Your task to perform on an android device: Open Chrome and go to the settings page Image 0: 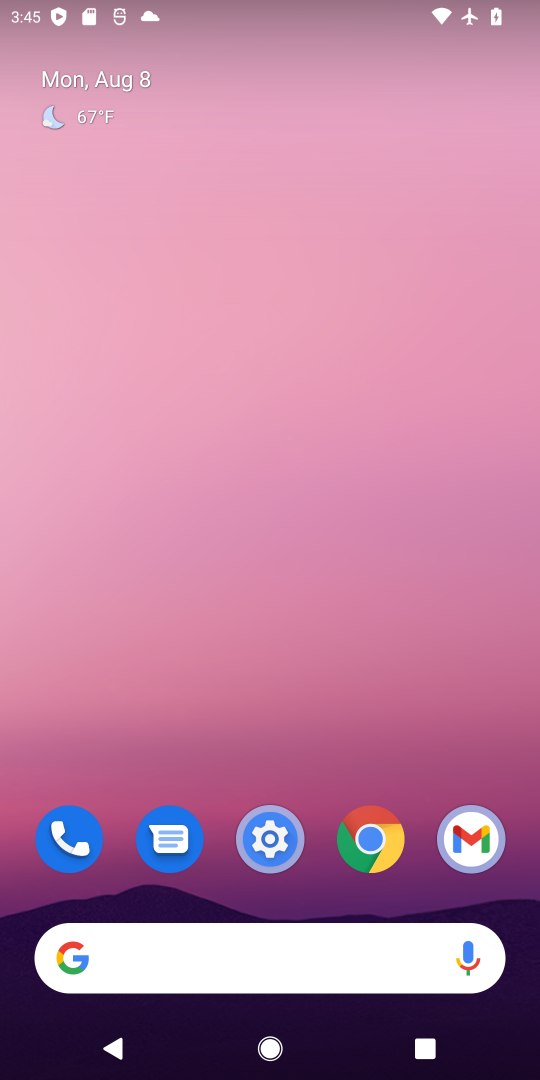
Step 0: press home button
Your task to perform on an android device: Open Chrome and go to the settings page Image 1: 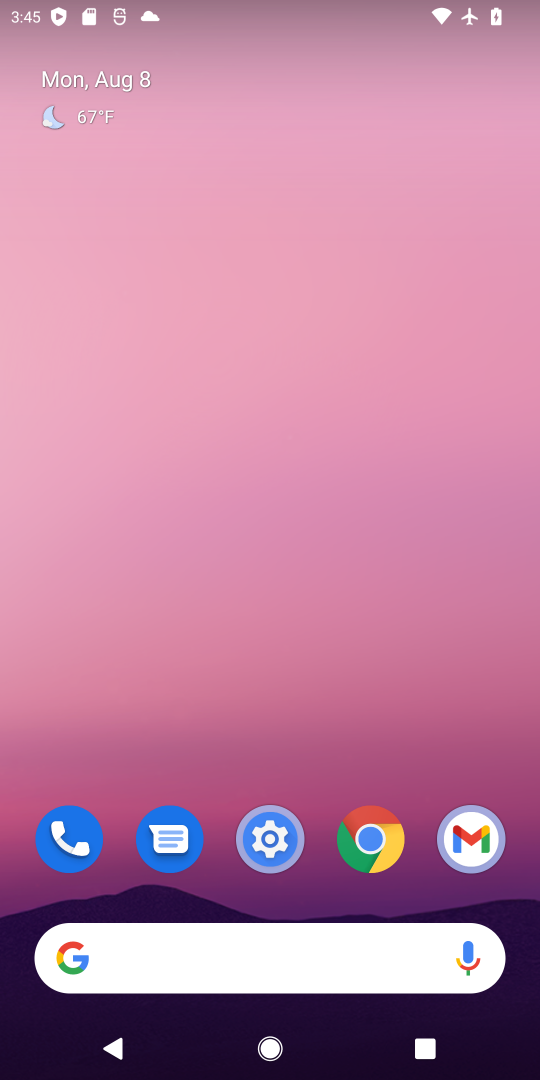
Step 1: drag from (434, 728) to (463, 273)
Your task to perform on an android device: Open Chrome and go to the settings page Image 2: 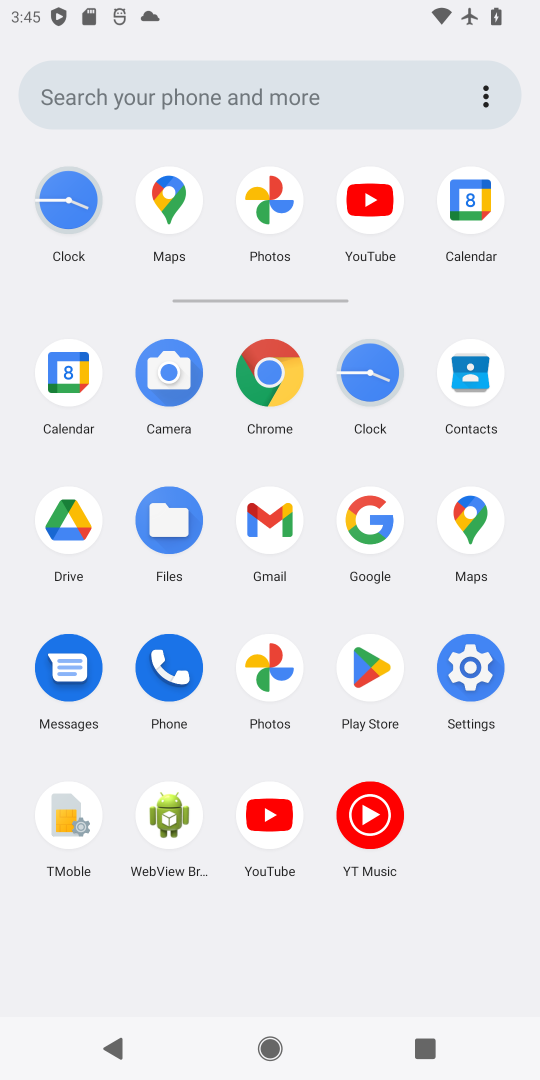
Step 2: click (269, 385)
Your task to perform on an android device: Open Chrome and go to the settings page Image 3: 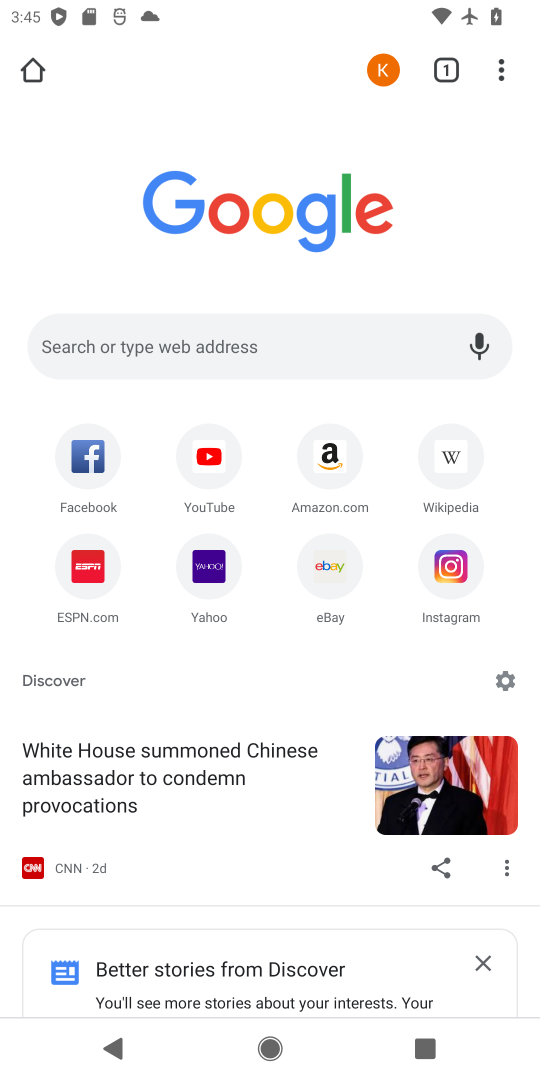
Step 3: click (500, 75)
Your task to perform on an android device: Open Chrome and go to the settings page Image 4: 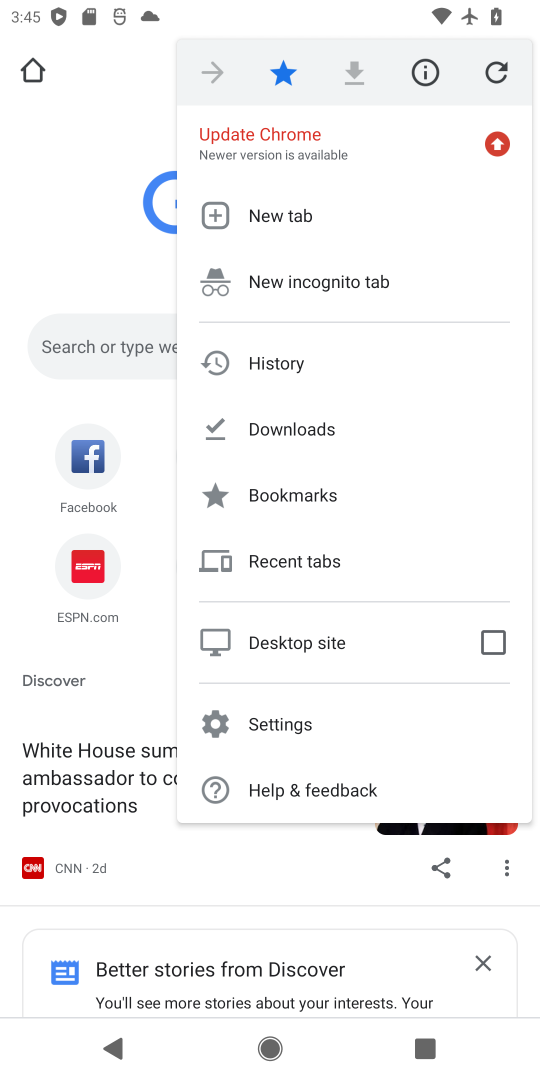
Step 4: click (354, 729)
Your task to perform on an android device: Open Chrome and go to the settings page Image 5: 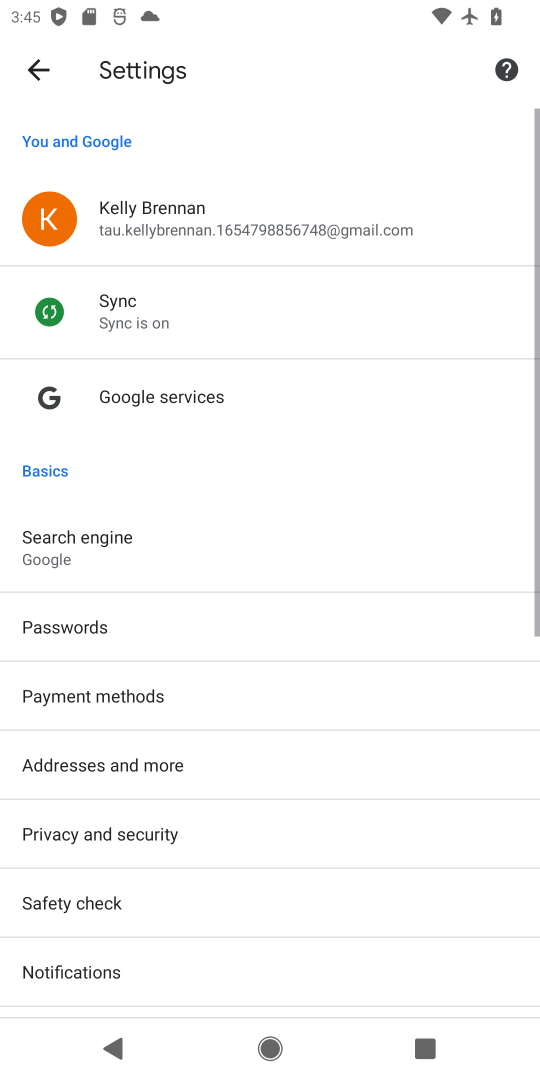
Step 5: task complete